Your task to perform on an android device: Open calendar and show me the first week of next month Image 0: 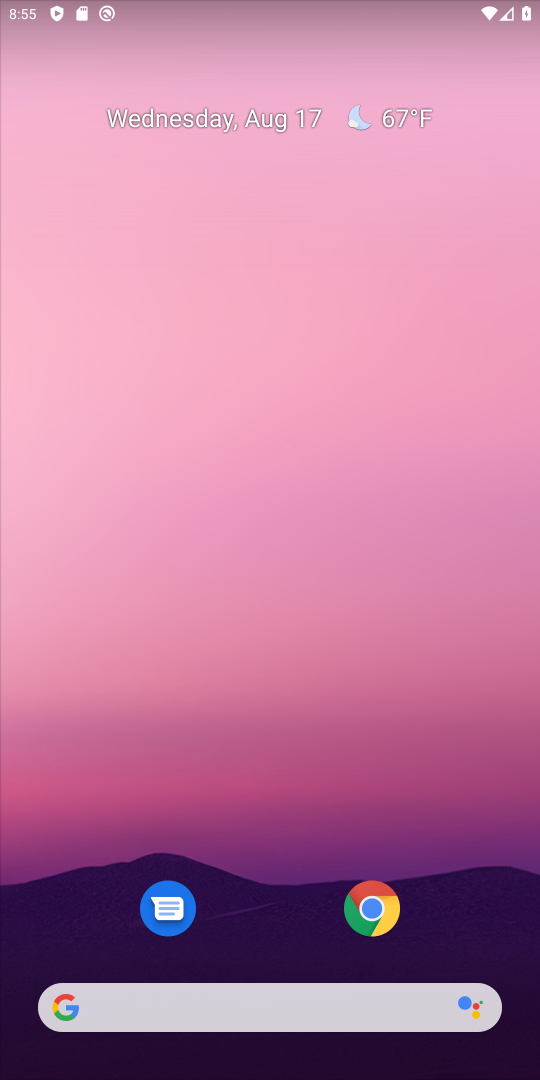
Step 0: drag from (318, 837) to (471, 72)
Your task to perform on an android device: Open calendar and show me the first week of next month Image 1: 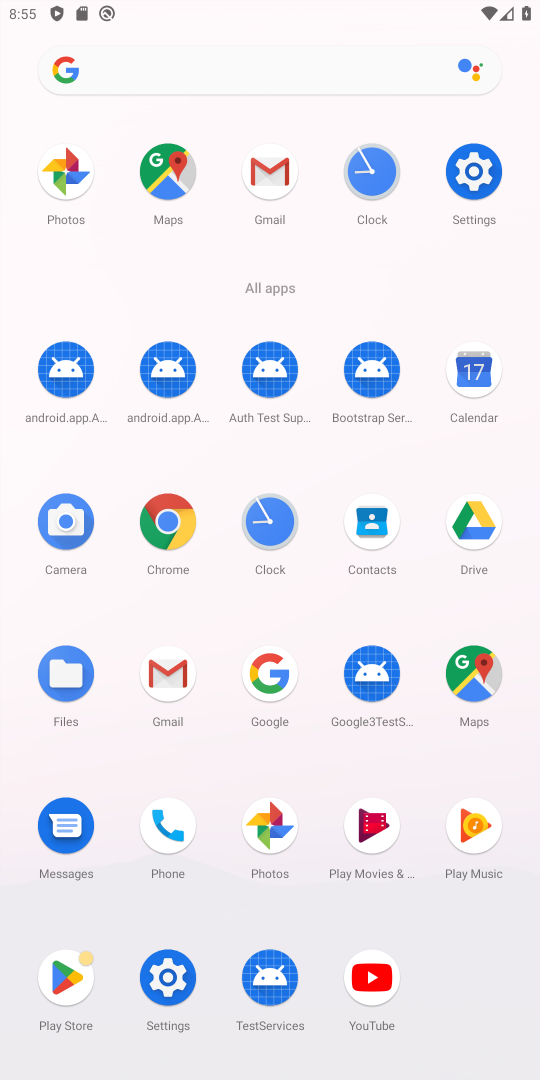
Step 1: click (477, 363)
Your task to perform on an android device: Open calendar and show me the first week of next month Image 2: 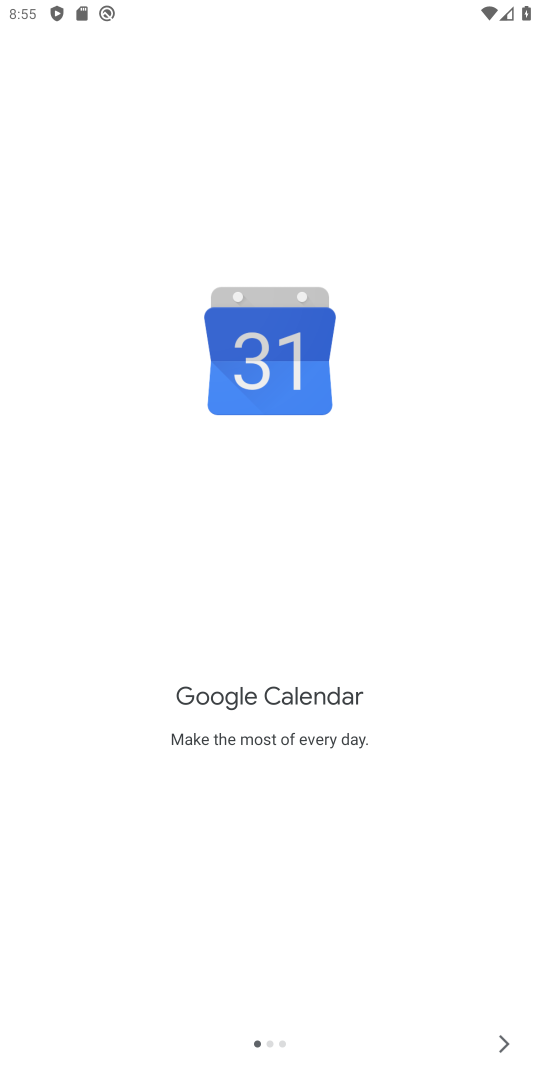
Step 2: click (498, 1043)
Your task to perform on an android device: Open calendar and show me the first week of next month Image 3: 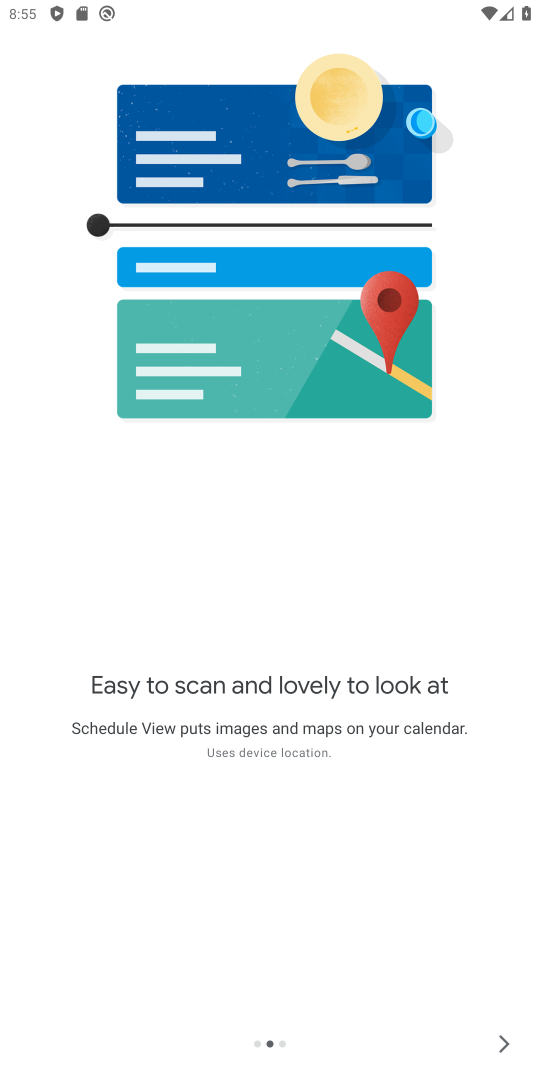
Step 3: click (498, 1043)
Your task to perform on an android device: Open calendar and show me the first week of next month Image 4: 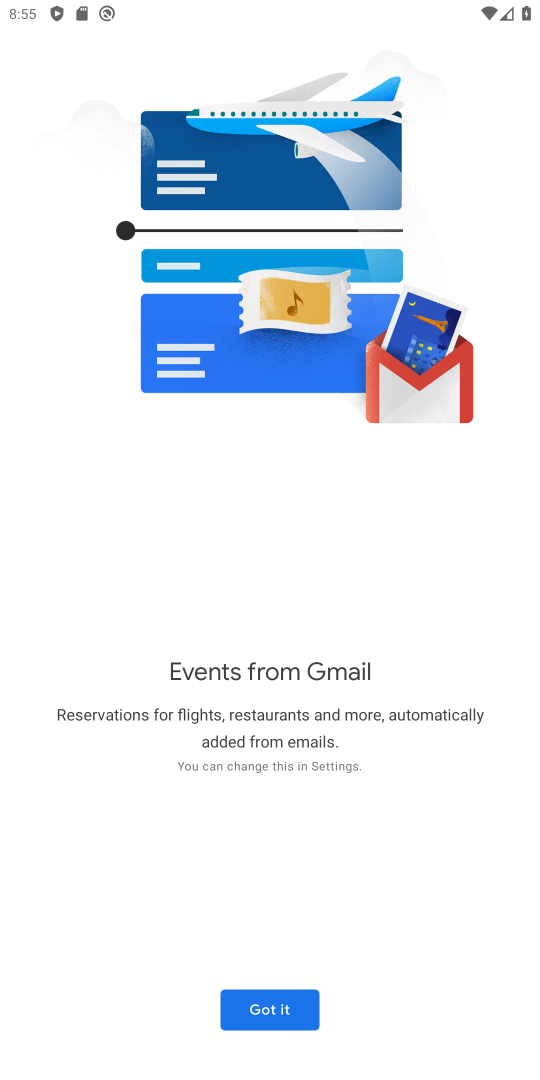
Step 4: click (271, 1012)
Your task to perform on an android device: Open calendar and show me the first week of next month Image 5: 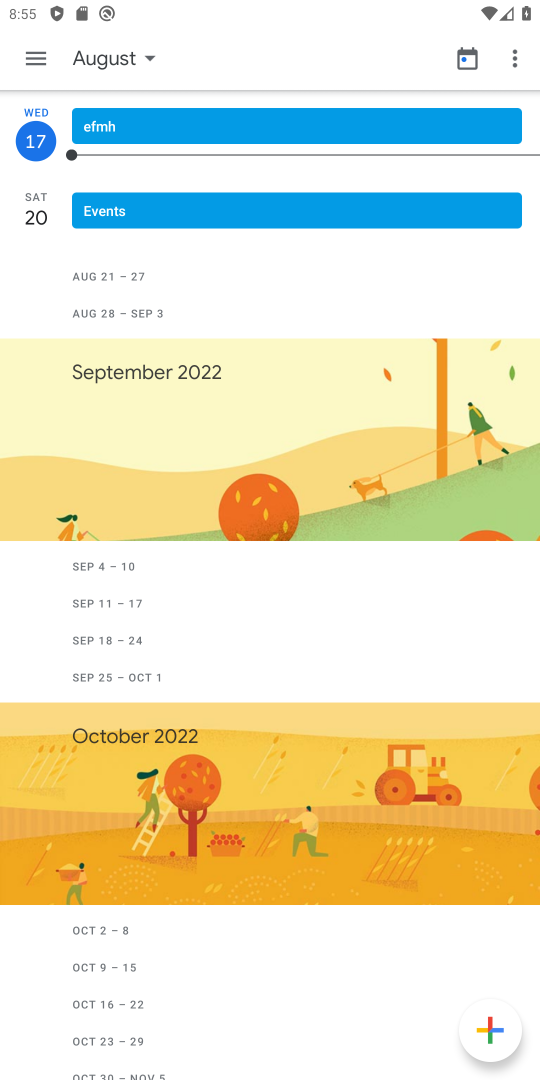
Step 5: click (112, 56)
Your task to perform on an android device: Open calendar and show me the first week of next month Image 6: 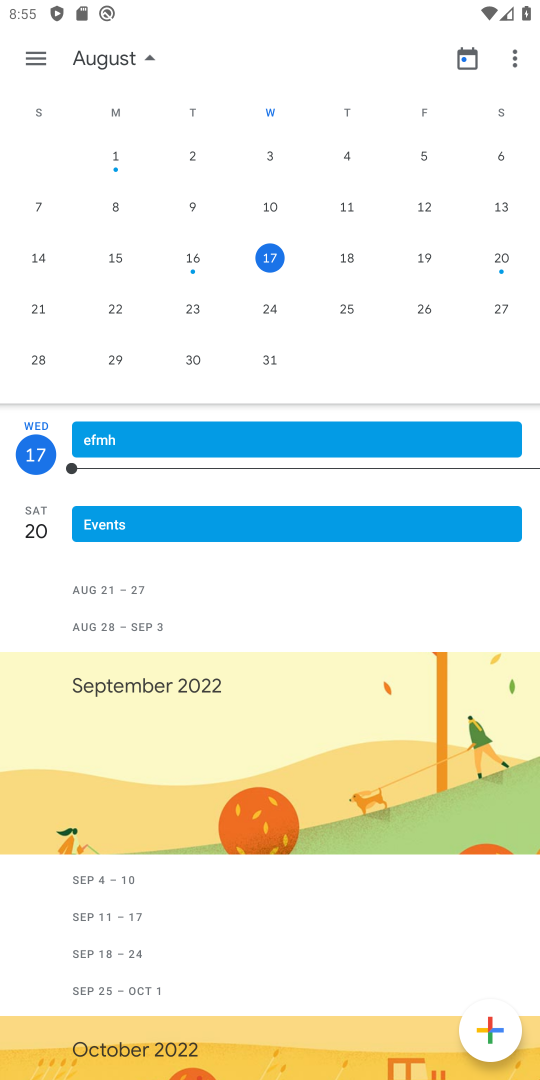
Step 6: drag from (479, 221) to (7, 279)
Your task to perform on an android device: Open calendar and show me the first week of next month Image 7: 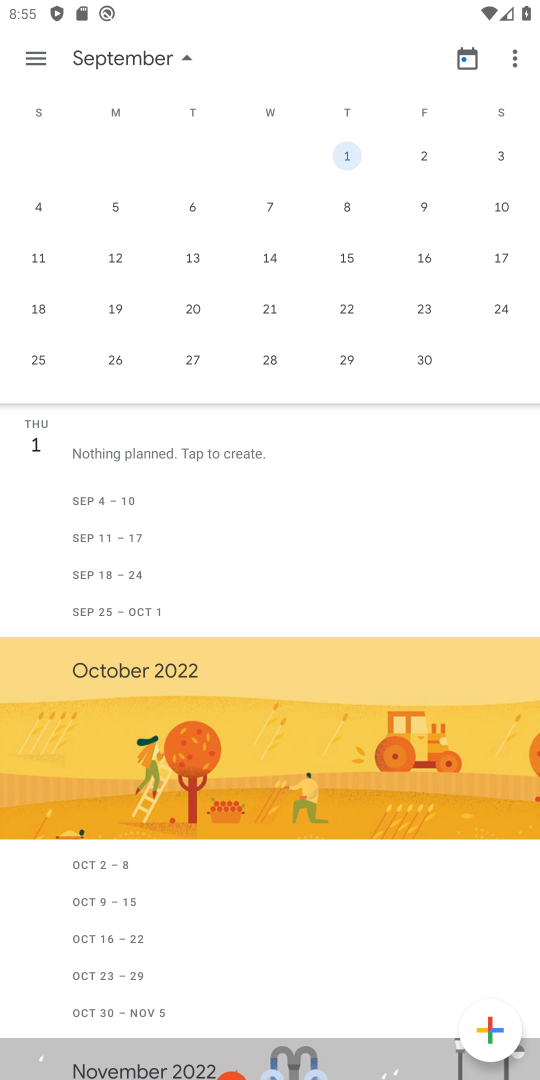
Step 7: click (351, 206)
Your task to perform on an android device: Open calendar and show me the first week of next month Image 8: 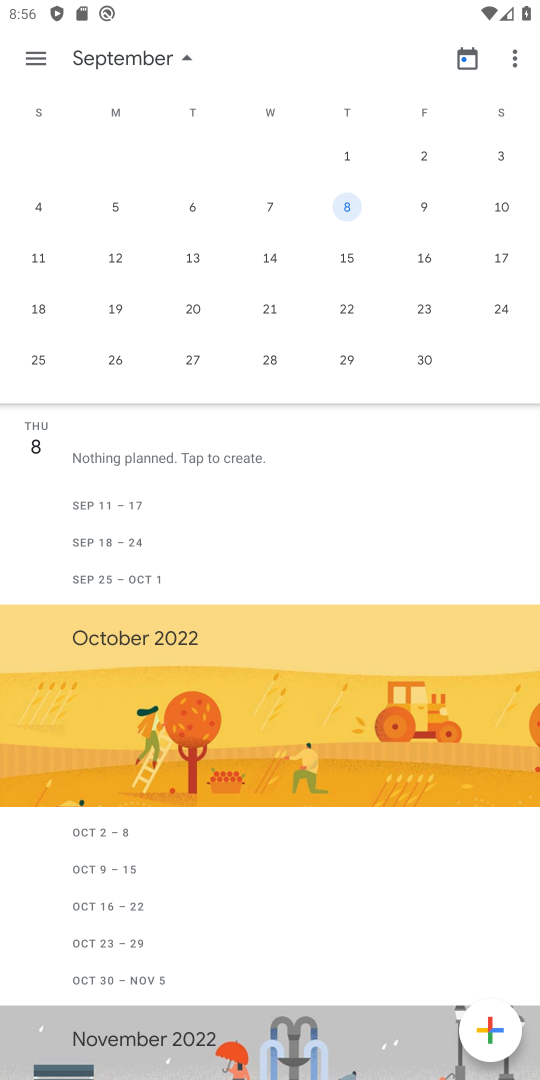
Step 8: task complete